Your task to perform on an android device: What is the recent news? Image 0: 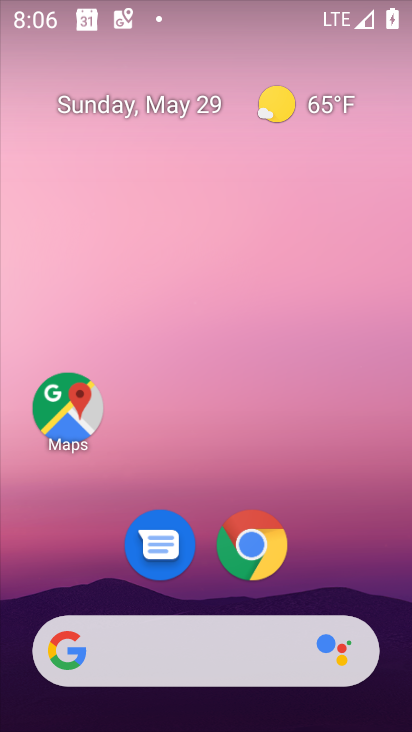
Step 0: click (250, 541)
Your task to perform on an android device: What is the recent news? Image 1: 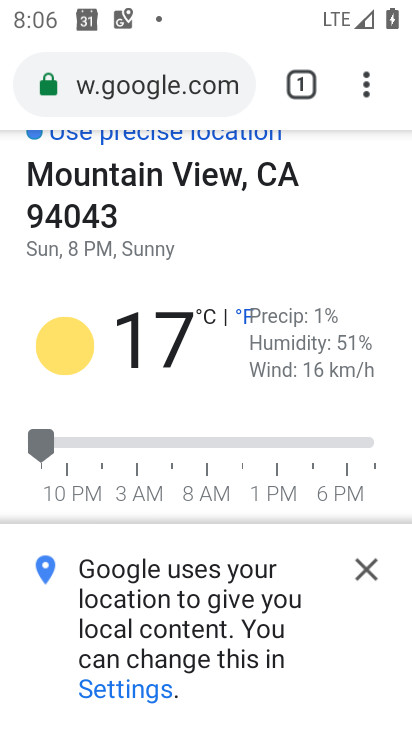
Step 1: click (167, 91)
Your task to perform on an android device: What is the recent news? Image 2: 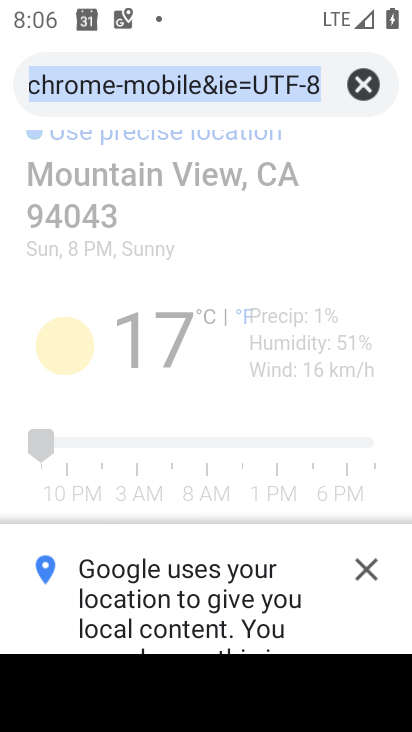
Step 2: type "recent news"
Your task to perform on an android device: What is the recent news? Image 3: 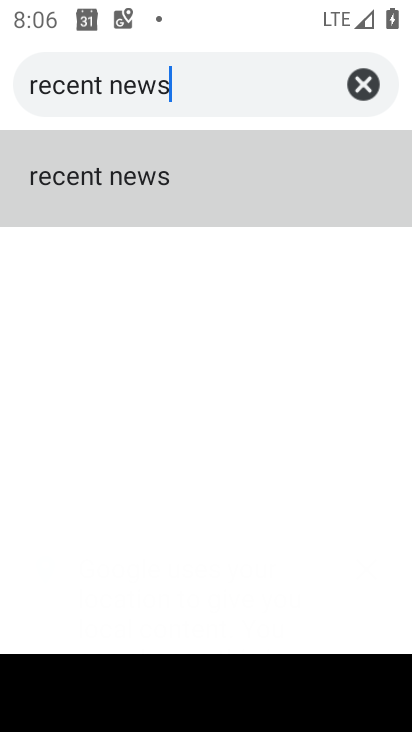
Step 3: click (217, 200)
Your task to perform on an android device: What is the recent news? Image 4: 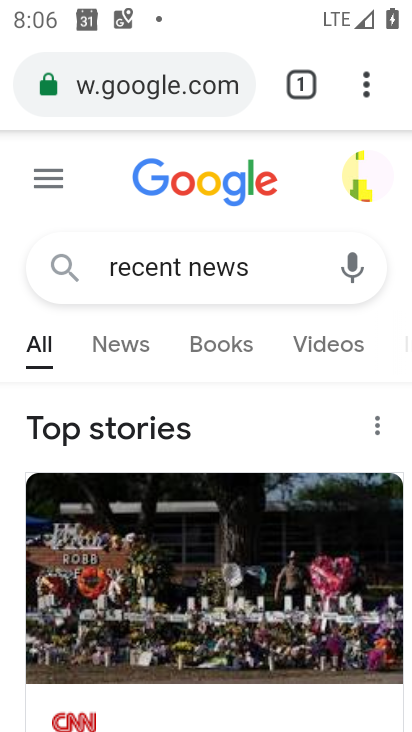
Step 4: task complete